Your task to perform on an android device: Go to Yahoo.com Image 0: 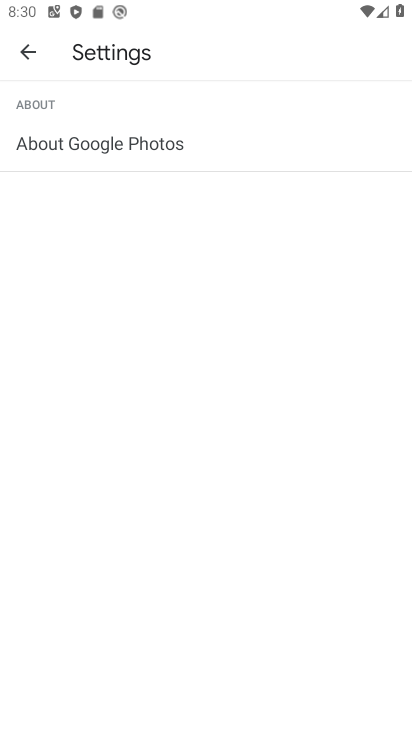
Step 0: press home button
Your task to perform on an android device: Go to Yahoo.com Image 1: 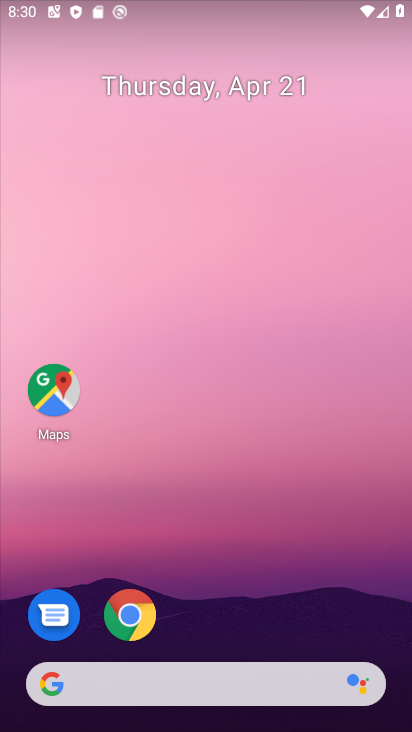
Step 1: click (133, 614)
Your task to perform on an android device: Go to Yahoo.com Image 2: 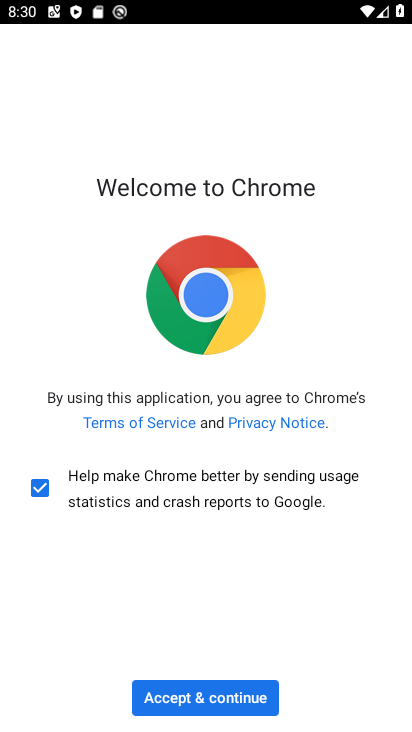
Step 2: click (215, 706)
Your task to perform on an android device: Go to Yahoo.com Image 3: 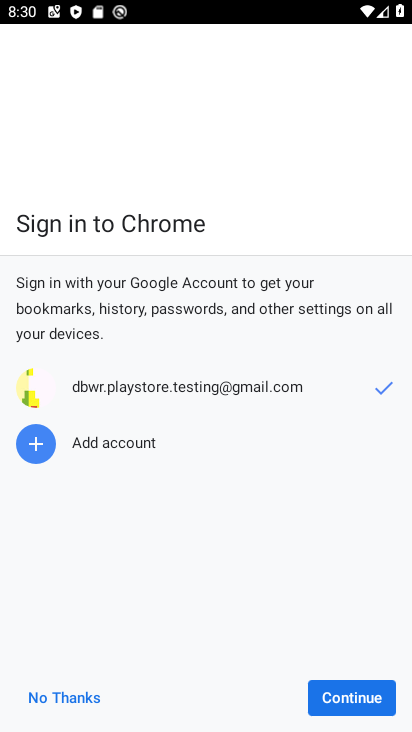
Step 3: click (347, 701)
Your task to perform on an android device: Go to Yahoo.com Image 4: 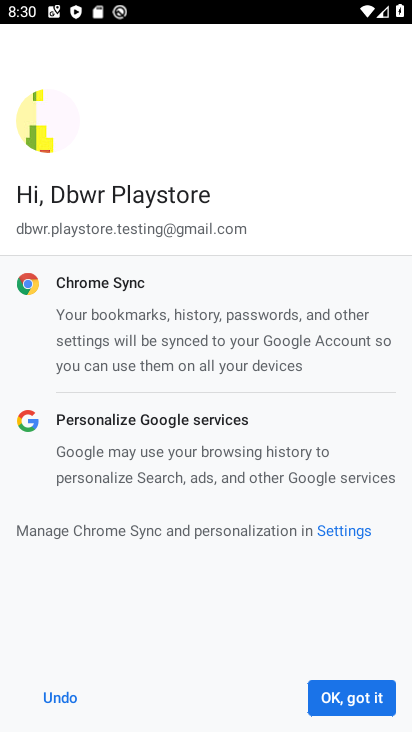
Step 4: click (348, 704)
Your task to perform on an android device: Go to Yahoo.com Image 5: 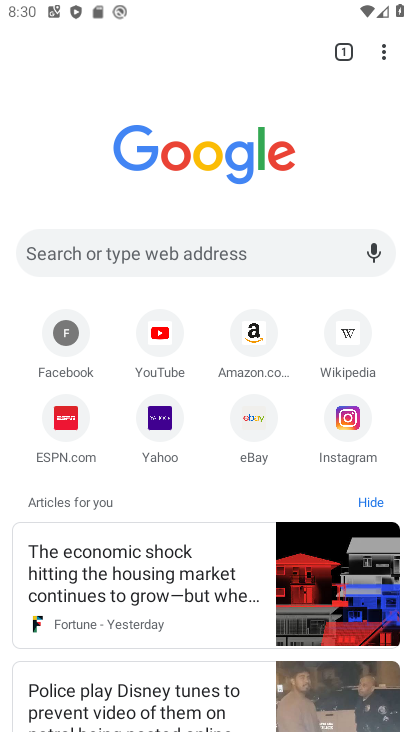
Step 5: click (166, 417)
Your task to perform on an android device: Go to Yahoo.com Image 6: 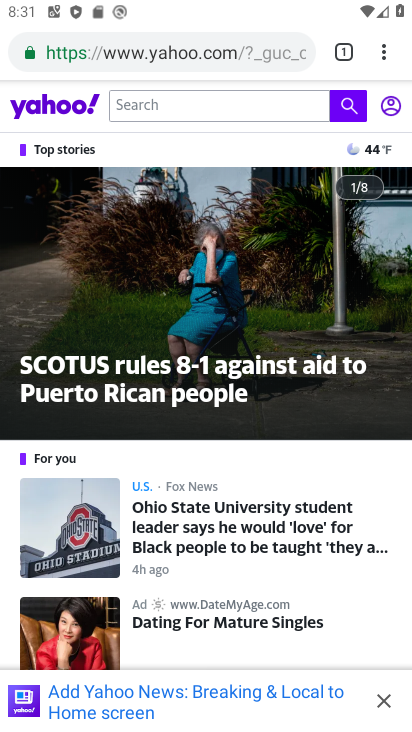
Step 6: task complete